Your task to perform on an android device: turn on sleep mode Image 0: 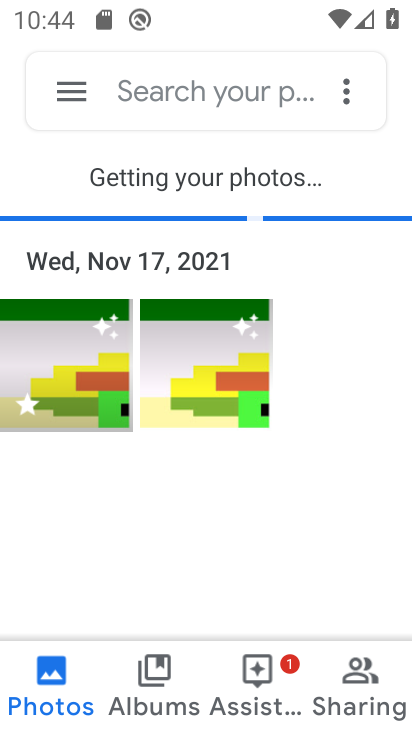
Step 0: press home button
Your task to perform on an android device: turn on sleep mode Image 1: 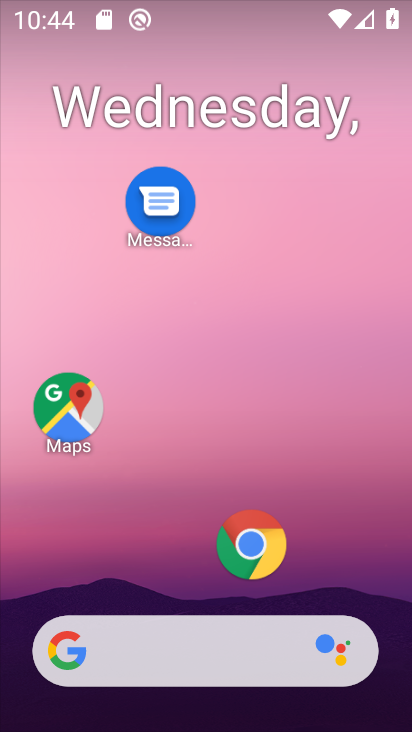
Step 1: drag from (208, 370) to (226, 121)
Your task to perform on an android device: turn on sleep mode Image 2: 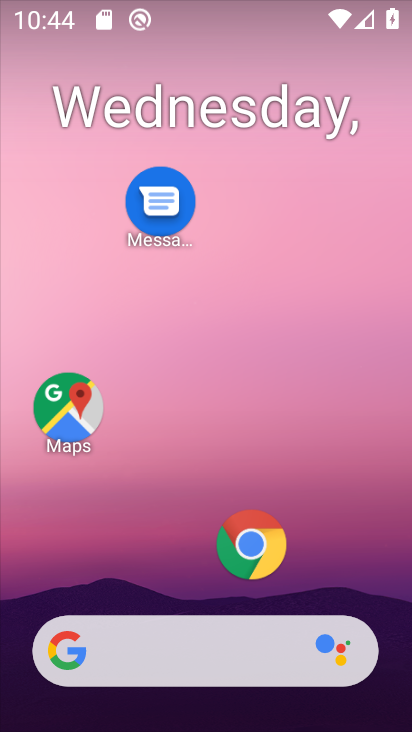
Step 2: drag from (209, 563) to (249, 187)
Your task to perform on an android device: turn on sleep mode Image 3: 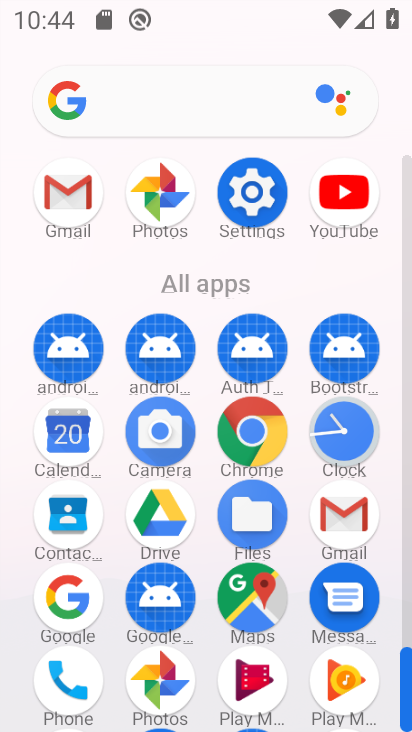
Step 3: click (245, 194)
Your task to perform on an android device: turn on sleep mode Image 4: 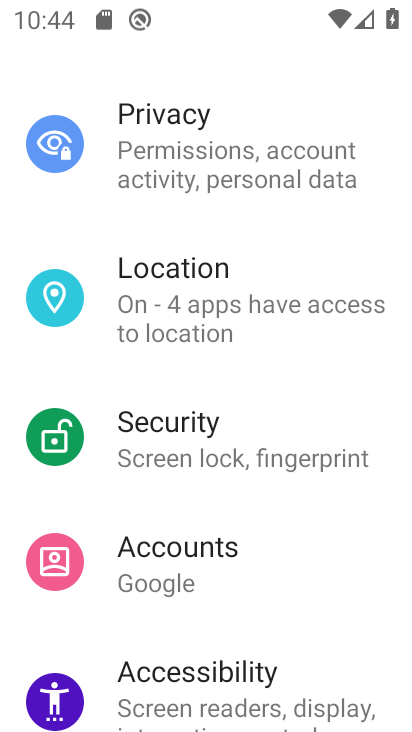
Step 4: drag from (247, 254) to (238, 562)
Your task to perform on an android device: turn on sleep mode Image 5: 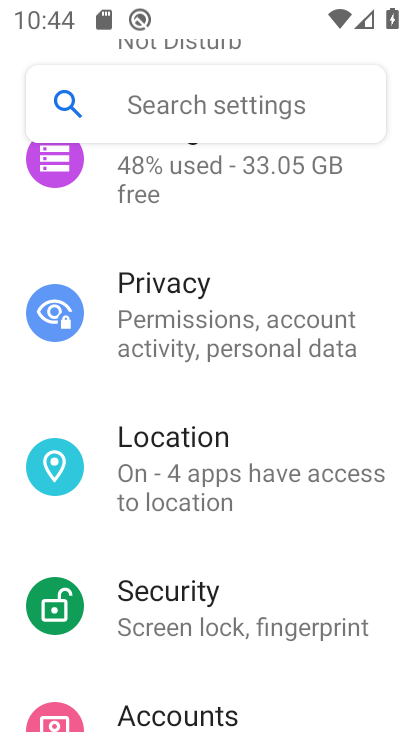
Step 5: drag from (220, 255) to (220, 576)
Your task to perform on an android device: turn on sleep mode Image 6: 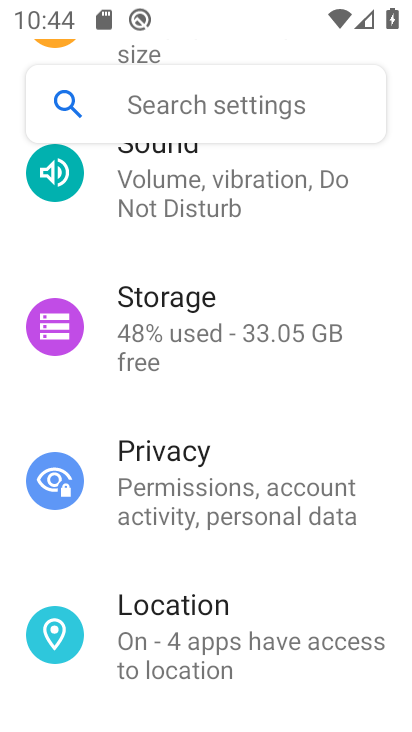
Step 6: drag from (229, 323) to (214, 532)
Your task to perform on an android device: turn on sleep mode Image 7: 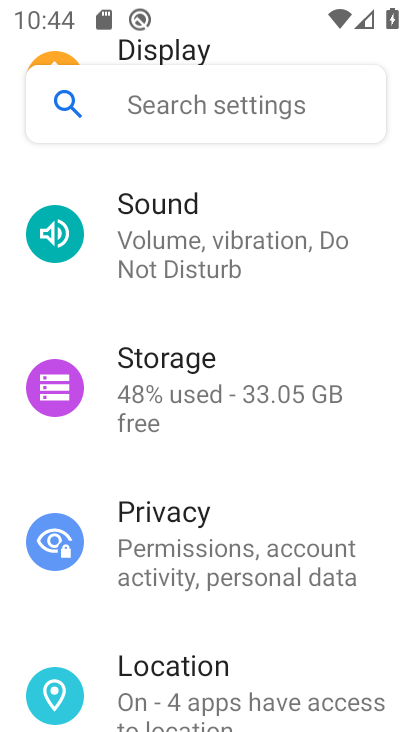
Step 7: drag from (191, 190) to (181, 594)
Your task to perform on an android device: turn on sleep mode Image 8: 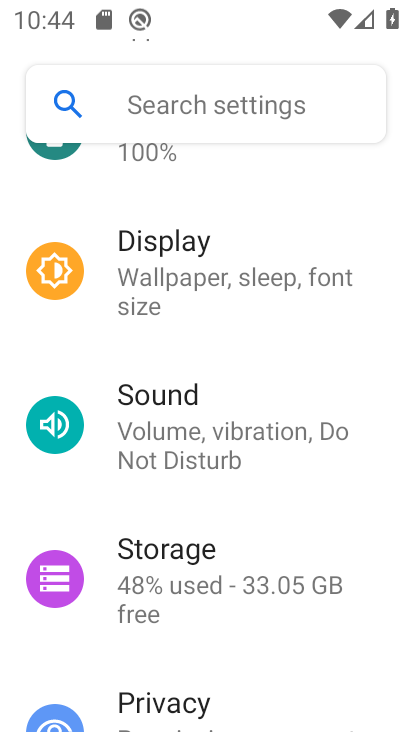
Step 8: drag from (226, 280) to (178, 264)
Your task to perform on an android device: turn on sleep mode Image 9: 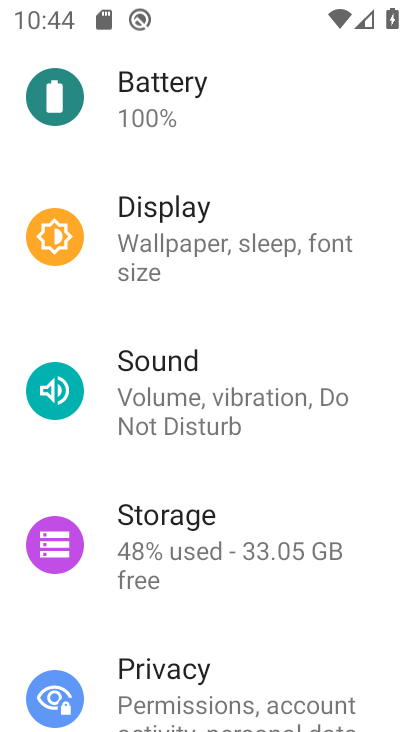
Step 9: click (185, 254)
Your task to perform on an android device: turn on sleep mode Image 10: 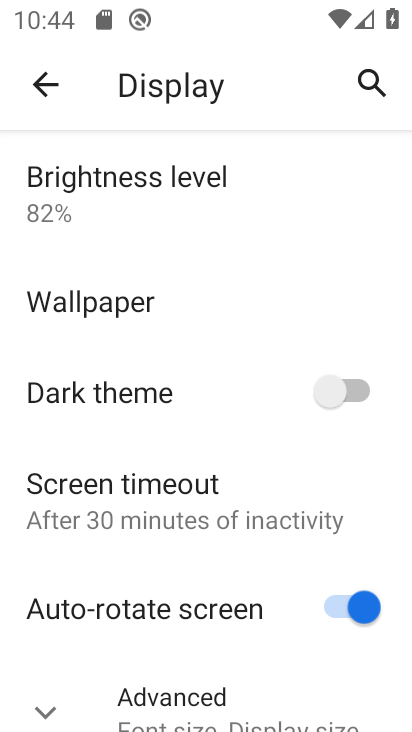
Step 10: drag from (188, 638) to (191, 384)
Your task to perform on an android device: turn on sleep mode Image 11: 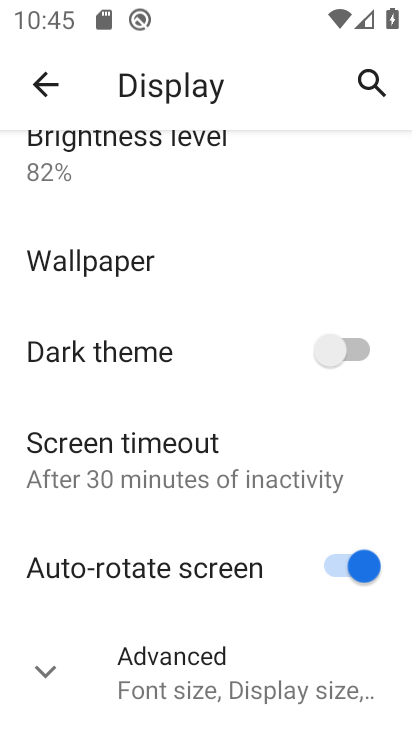
Step 11: click (133, 443)
Your task to perform on an android device: turn on sleep mode Image 12: 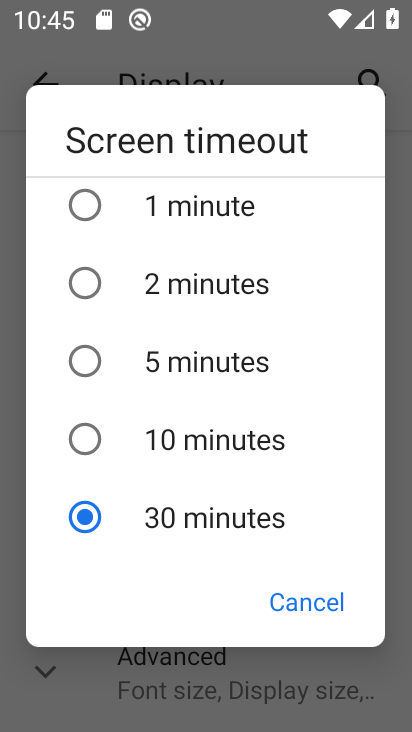
Step 12: click (186, 285)
Your task to perform on an android device: turn on sleep mode Image 13: 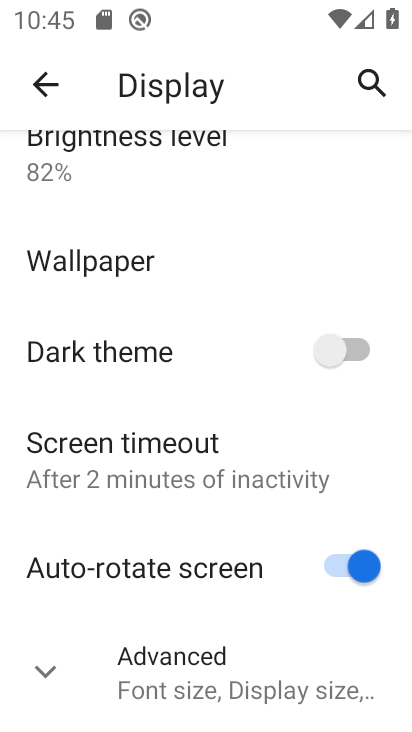
Step 13: task complete